Your task to perform on an android device: Open maps Image 0: 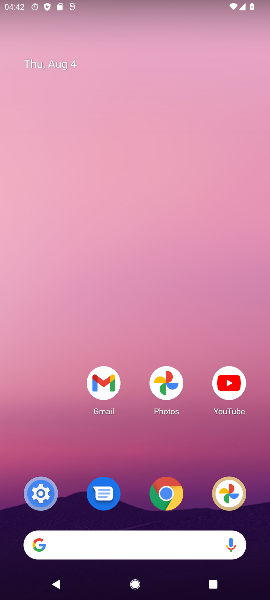
Step 0: drag from (57, 499) to (174, 173)
Your task to perform on an android device: Open maps Image 1: 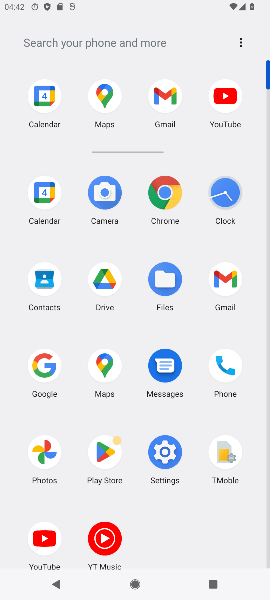
Step 1: click (101, 363)
Your task to perform on an android device: Open maps Image 2: 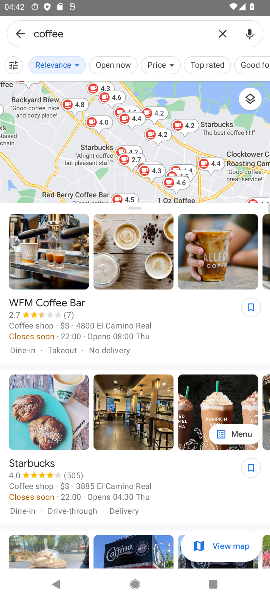
Step 2: click (22, 29)
Your task to perform on an android device: Open maps Image 3: 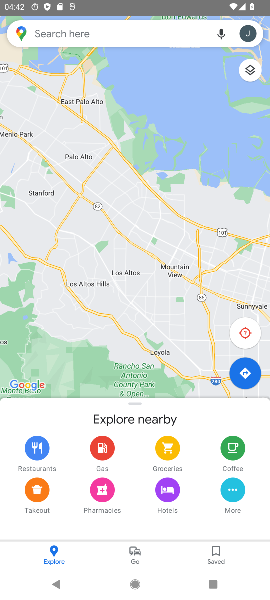
Step 3: task complete